Your task to perform on an android device: Is it going to rain this weekend? Image 0: 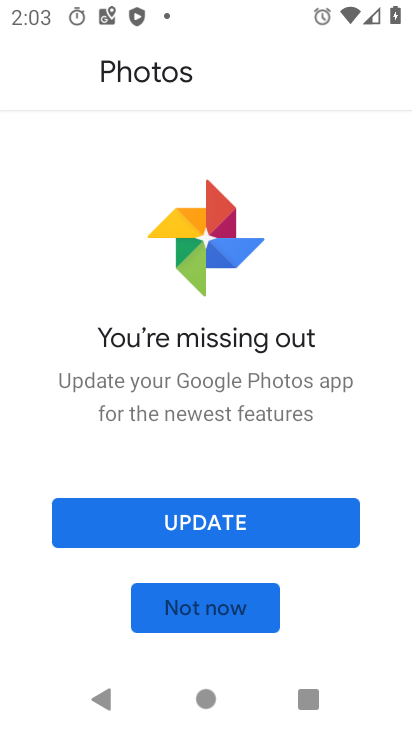
Step 0: press home button
Your task to perform on an android device: Is it going to rain this weekend? Image 1: 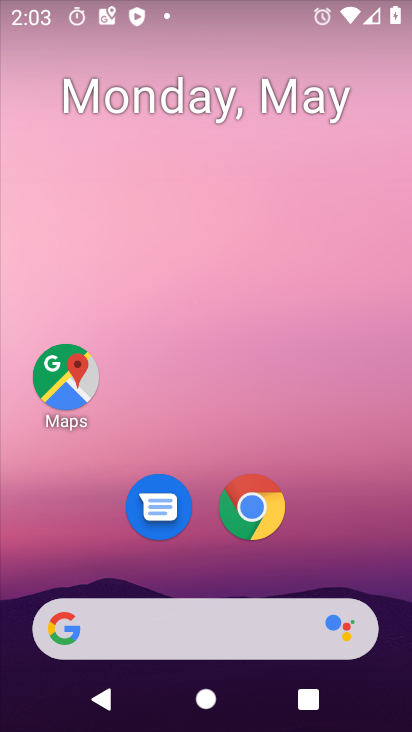
Step 1: drag from (230, 719) to (230, 141)
Your task to perform on an android device: Is it going to rain this weekend? Image 2: 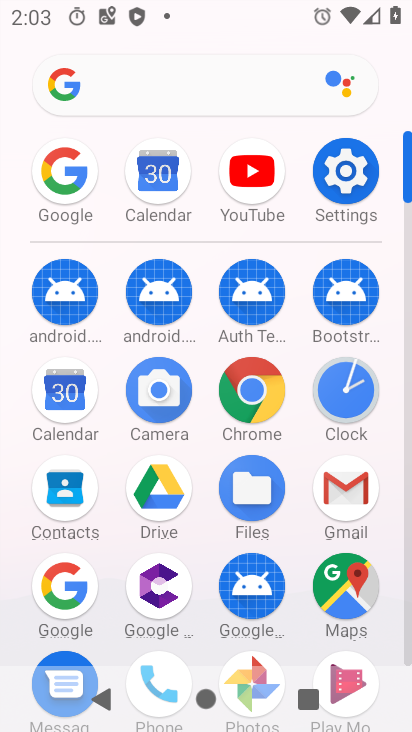
Step 2: click (54, 592)
Your task to perform on an android device: Is it going to rain this weekend? Image 3: 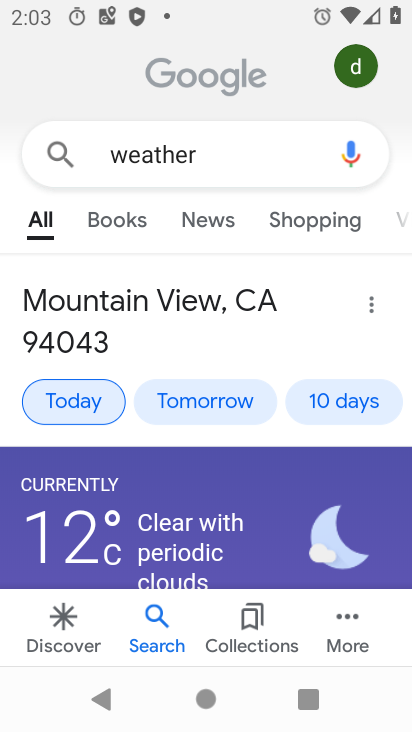
Step 3: click (357, 398)
Your task to perform on an android device: Is it going to rain this weekend? Image 4: 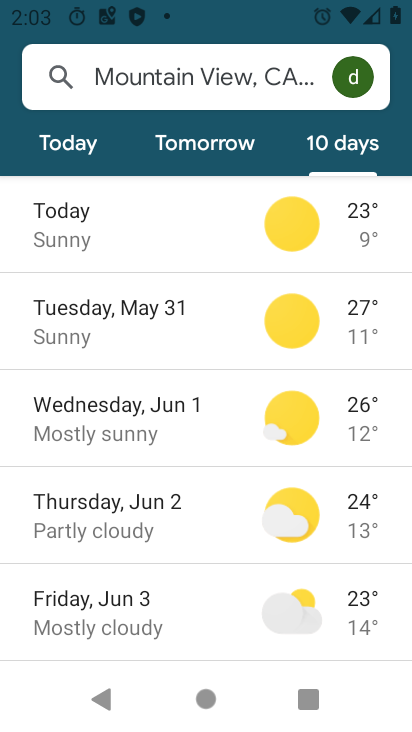
Step 4: task complete